Your task to perform on an android device: Go to Maps Image 0: 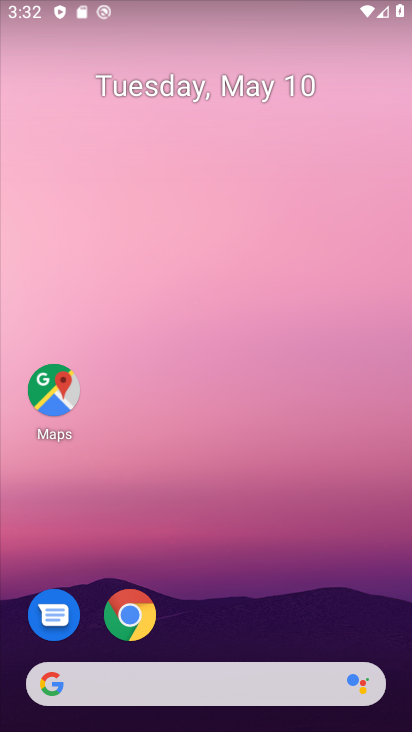
Step 0: drag from (281, 608) to (246, 169)
Your task to perform on an android device: Go to Maps Image 1: 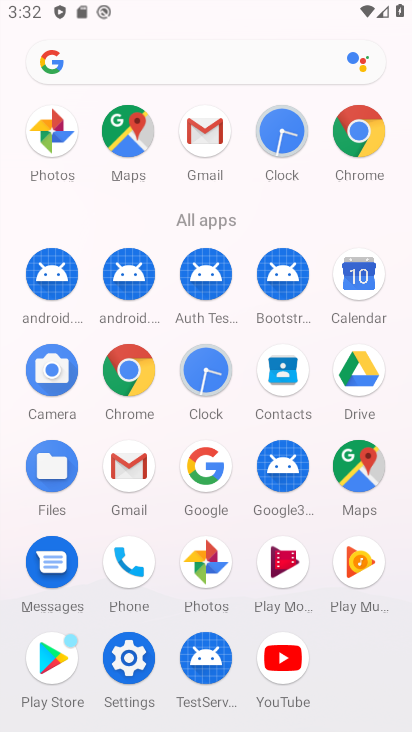
Step 1: click (121, 123)
Your task to perform on an android device: Go to Maps Image 2: 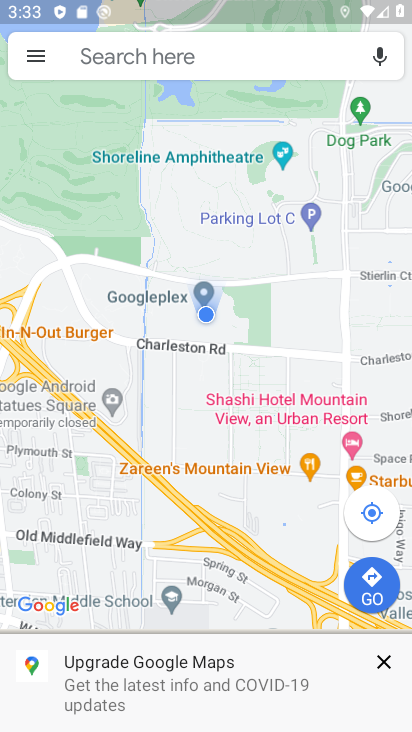
Step 2: task complete